Your task to perform on an android device: Add "alienware area 51" to the cart on newegg.com, then select checkout. Image 0: 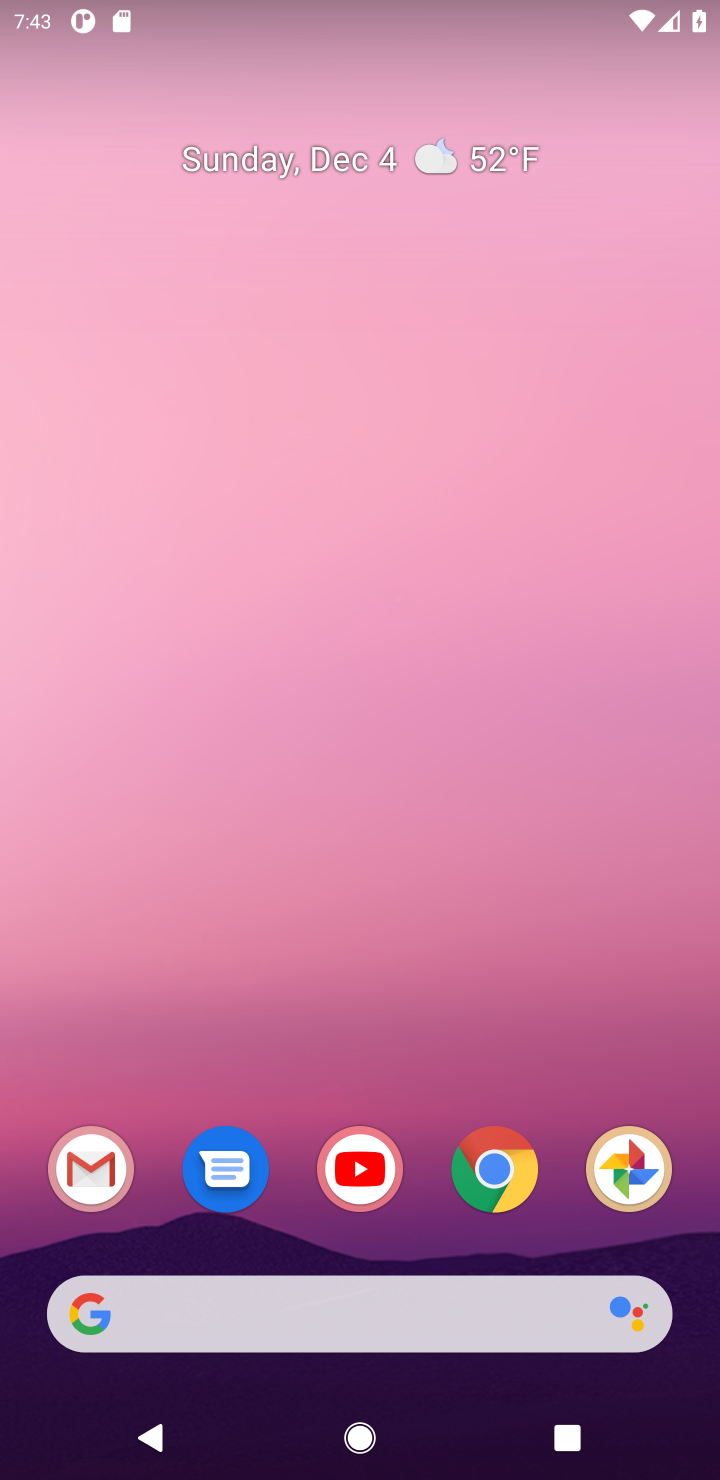
Step 0: click (500, 1178)
Your task to perform on an android device: Add "alienware area 51" to the cart on newegg.com, then select checkout. Image 1: 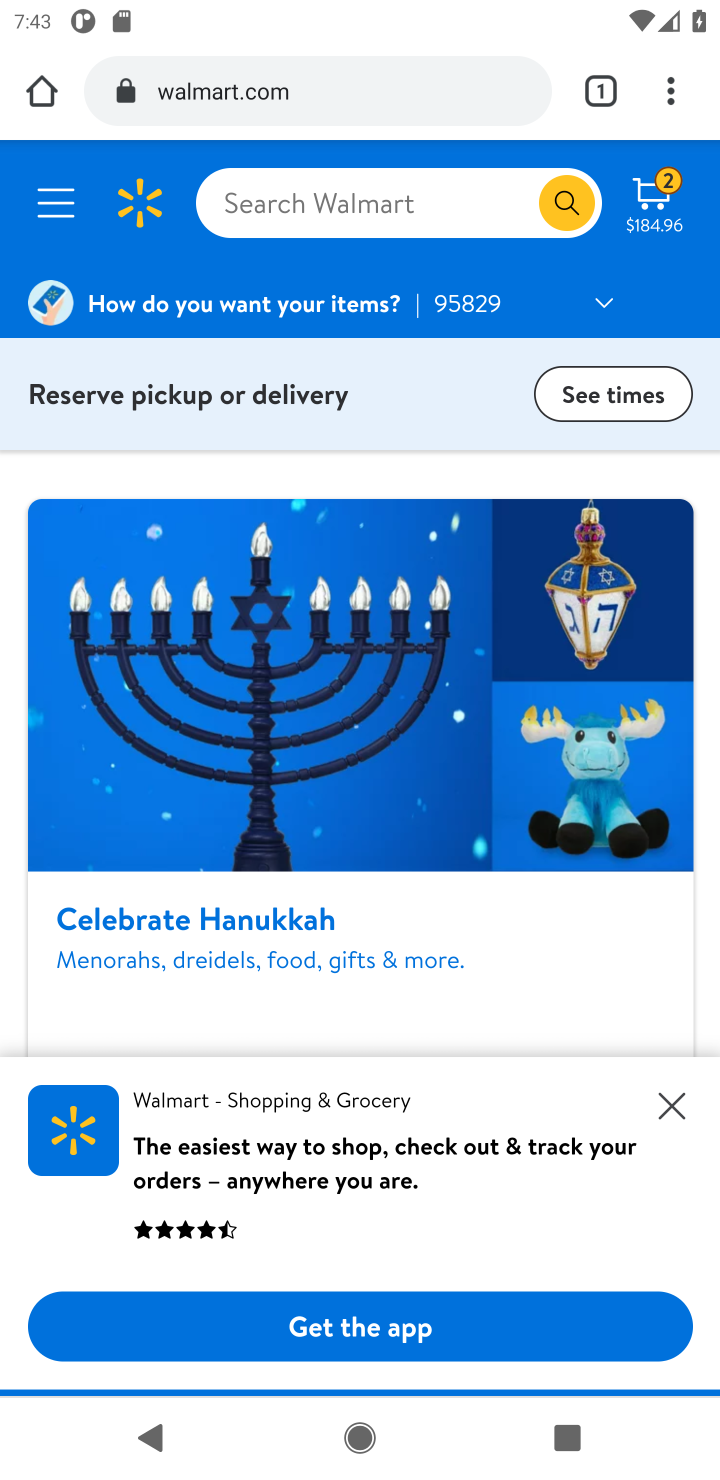
Step 1: click (335, 92)
Your task to perform on an android device: Add "alienware area 51" to the cart on newegg.com, then select checkout. Image 2: 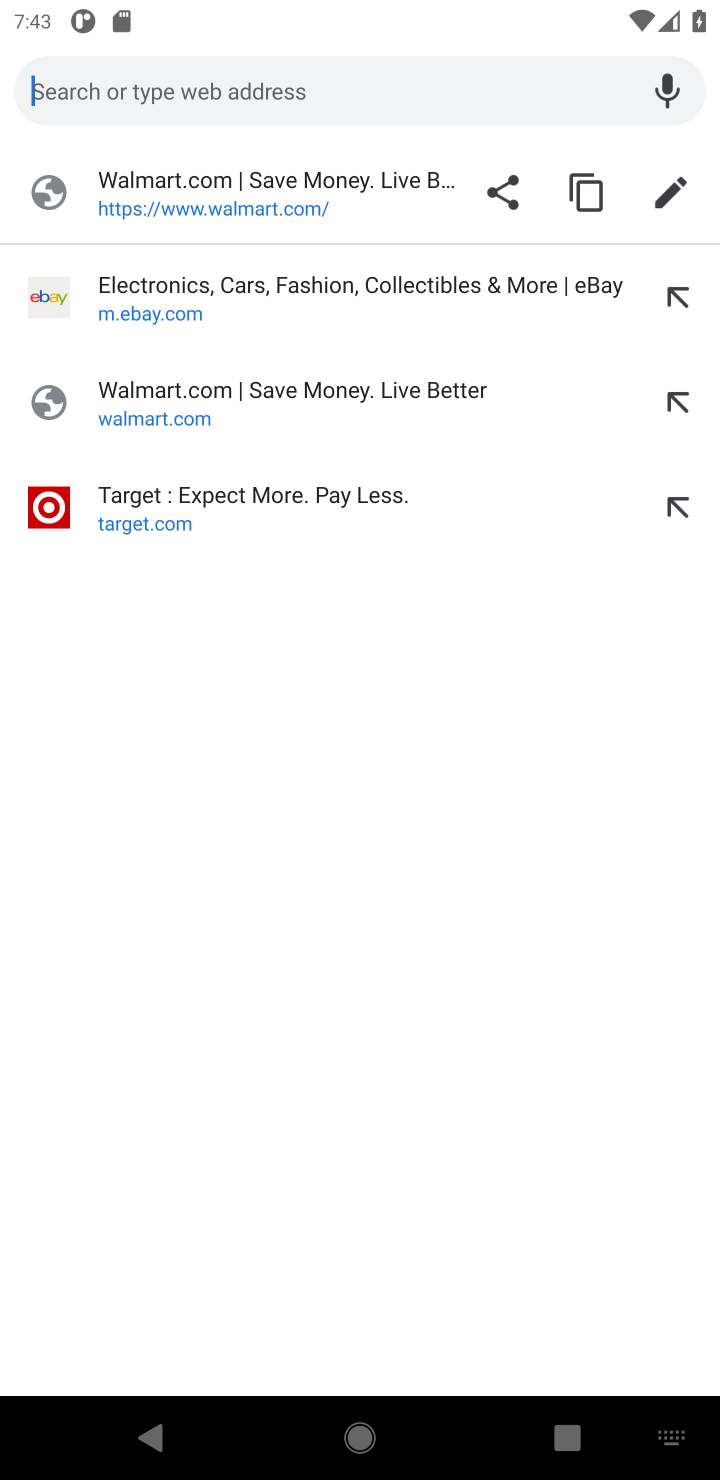
Step 2: type "newegg"
Your task to perform on an android device: Add "alienware area 51" to the cart on newegg.com, then select checkout. Image 3: 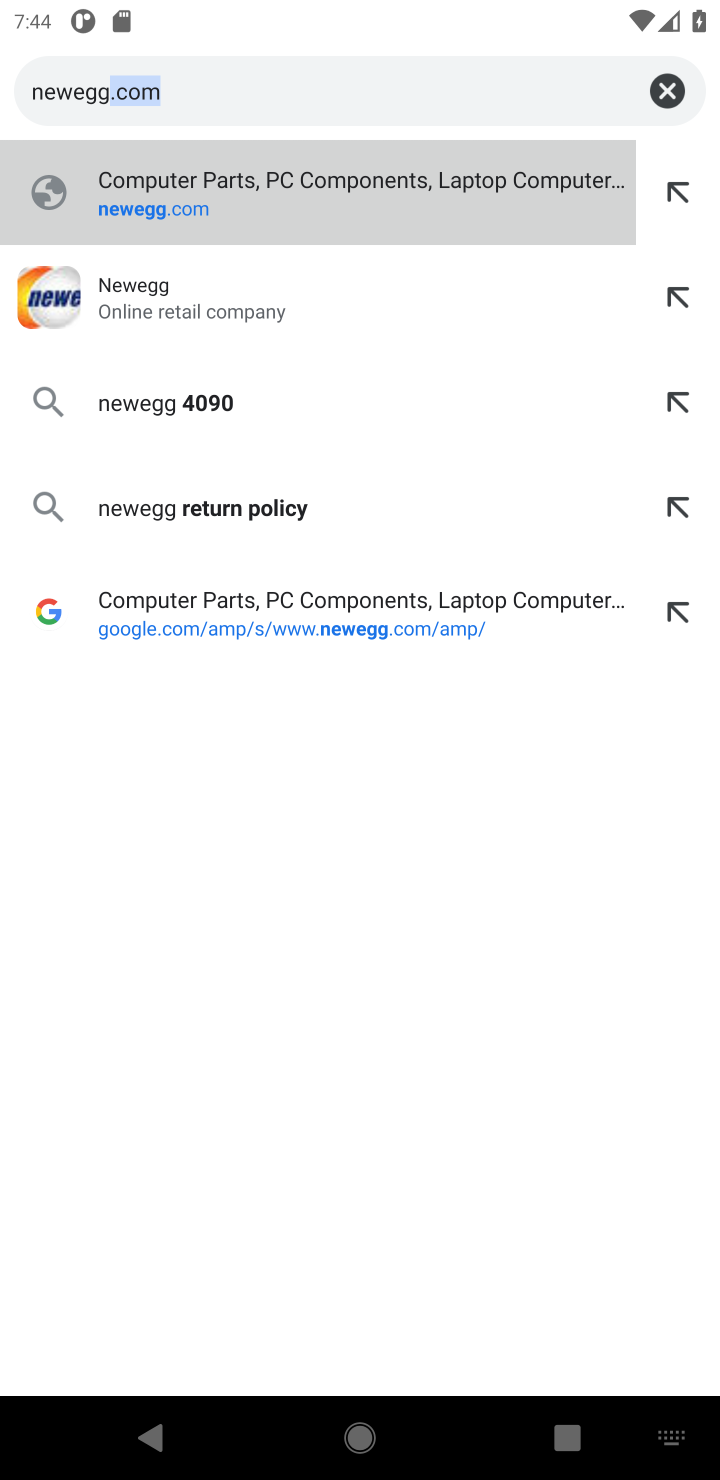
Step 3: click (222, 198)
Your task to perform on an android device: Add "alienware area 51" to the cart on newegg.com, then select checkout. Image 4: 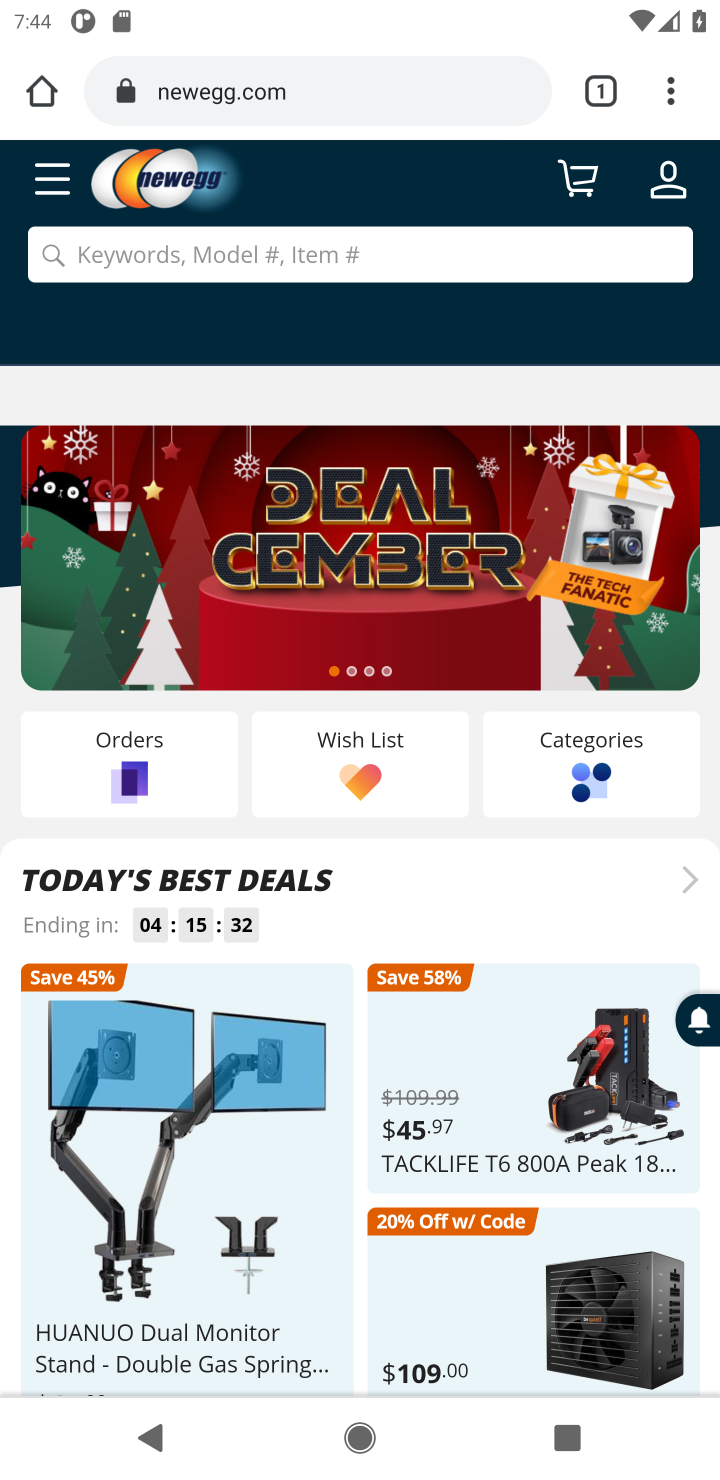
Step 4: click (365, 253)
Your task to perform on an android device: Add "alienware area 51" to the cart on newegg.com, then select checkout. Image 5: 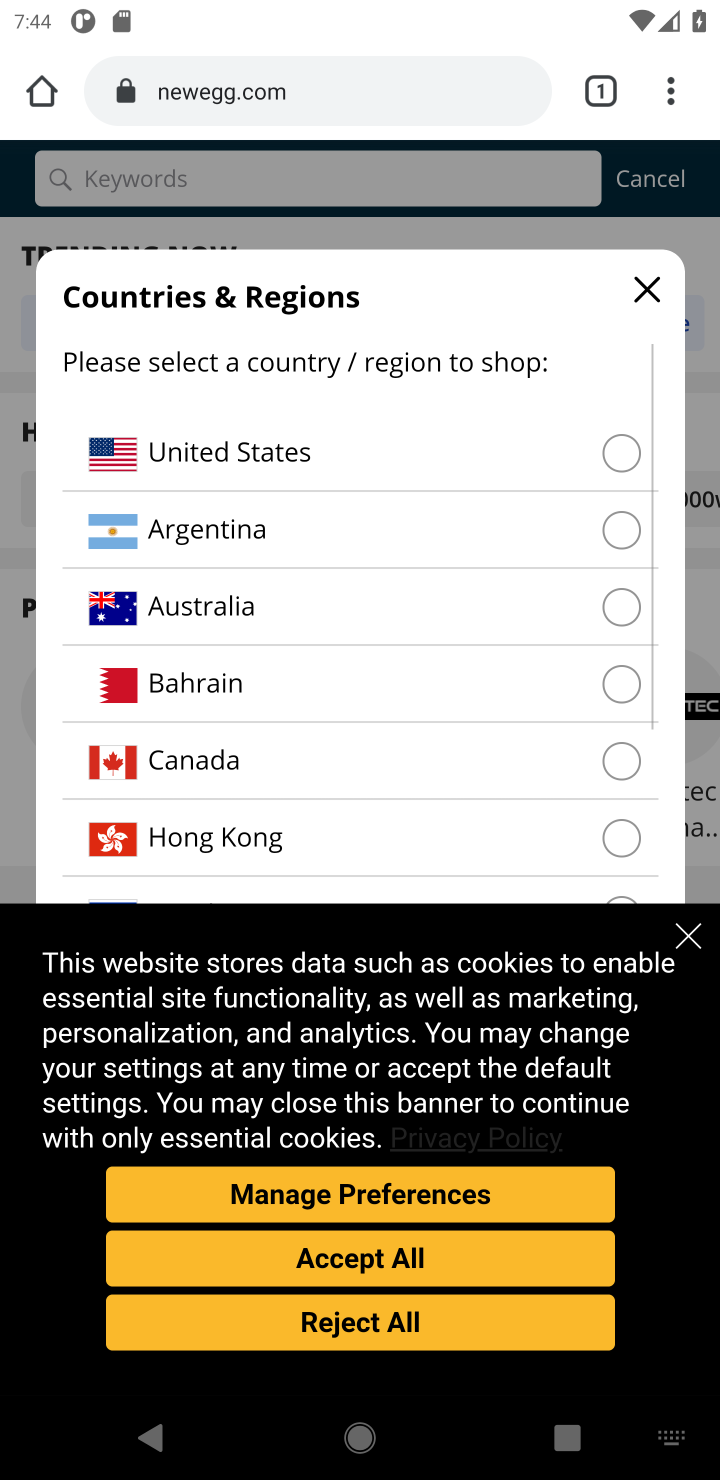
Step 5: click (684, 943)
Your task to perform on an android device: Add "alienware area 51" to the cart on newegg.com, then select checkout. Image 6: 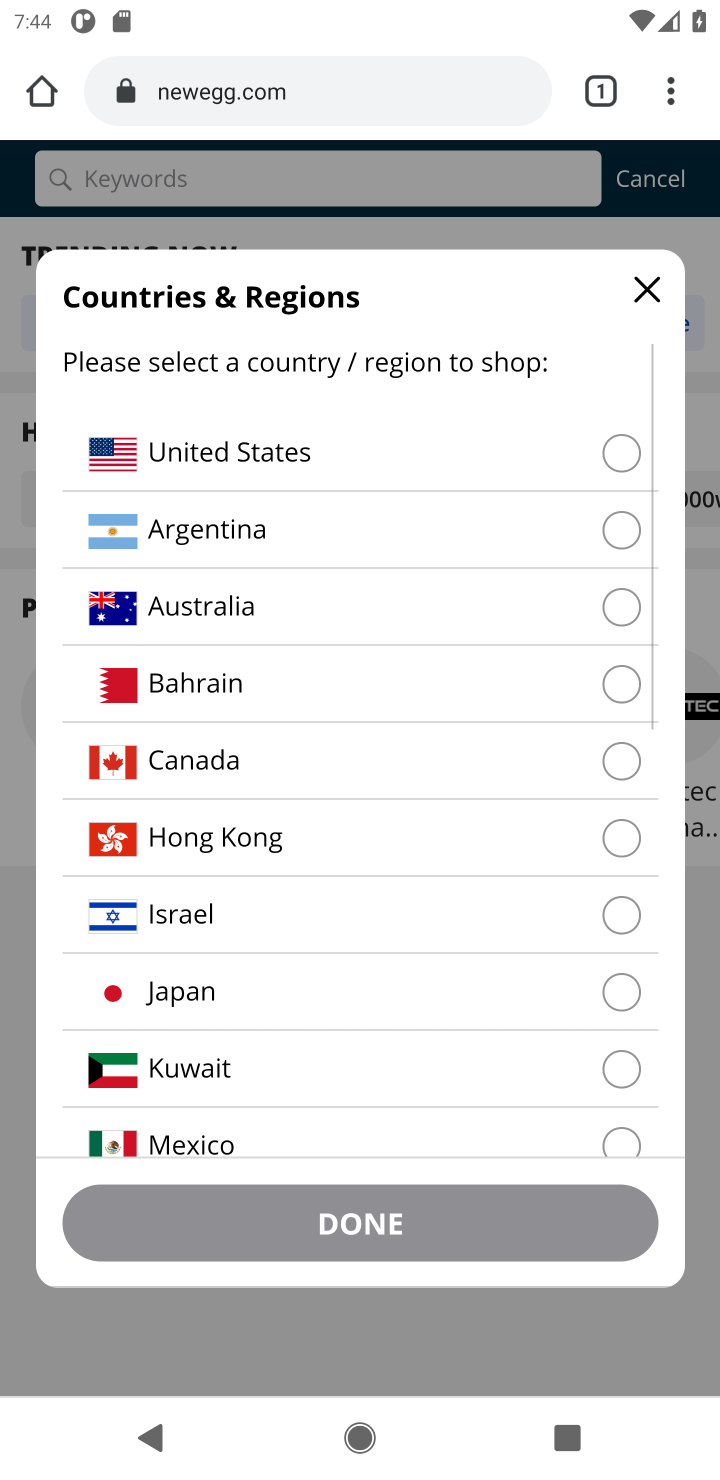
Step 6: click (636, 292)
Your task to perform on an android device: Add "alienware area 51" to the cart on newegg.com, then select checkout. Image 7: 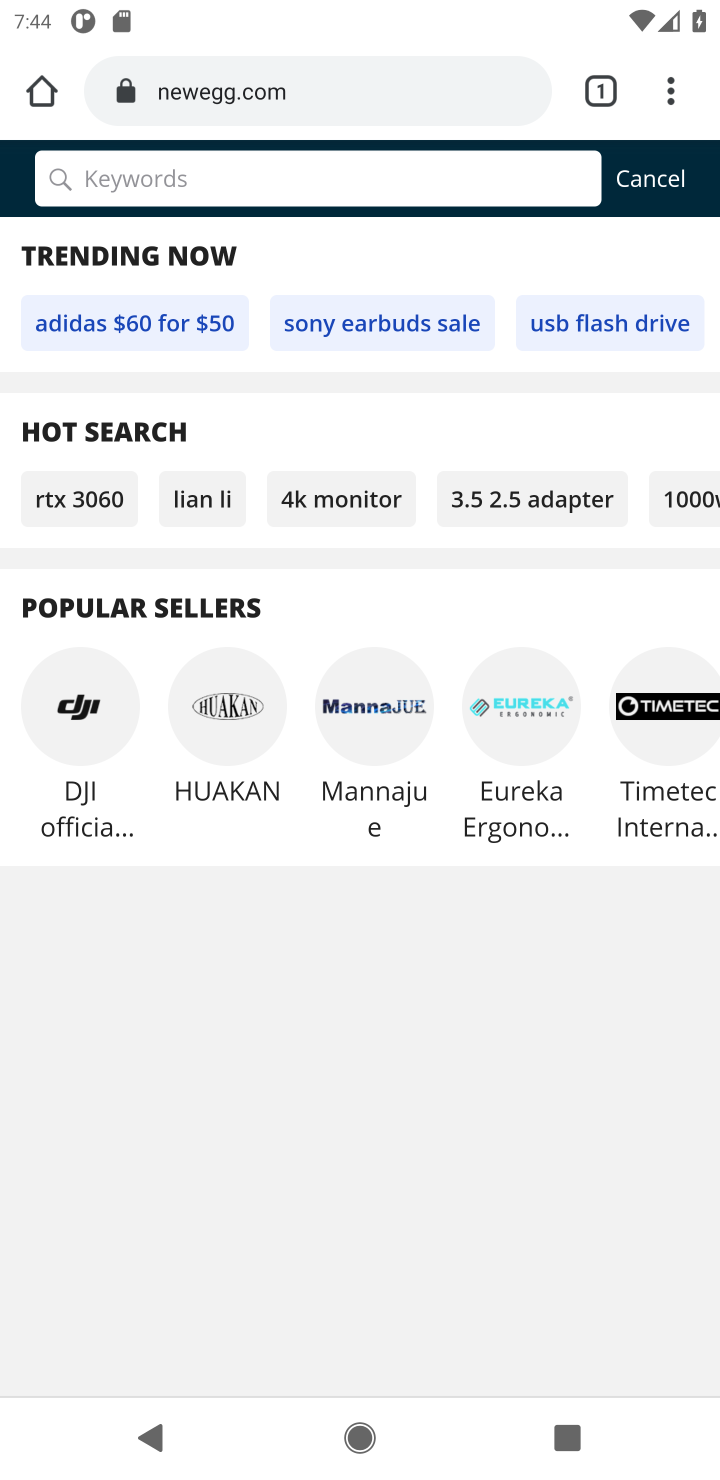
Step 7: click (435, 184)
Your task to perform on an android device: Add "alienware area 51" to the cart on newegg.com, then select checkout. Image 8: 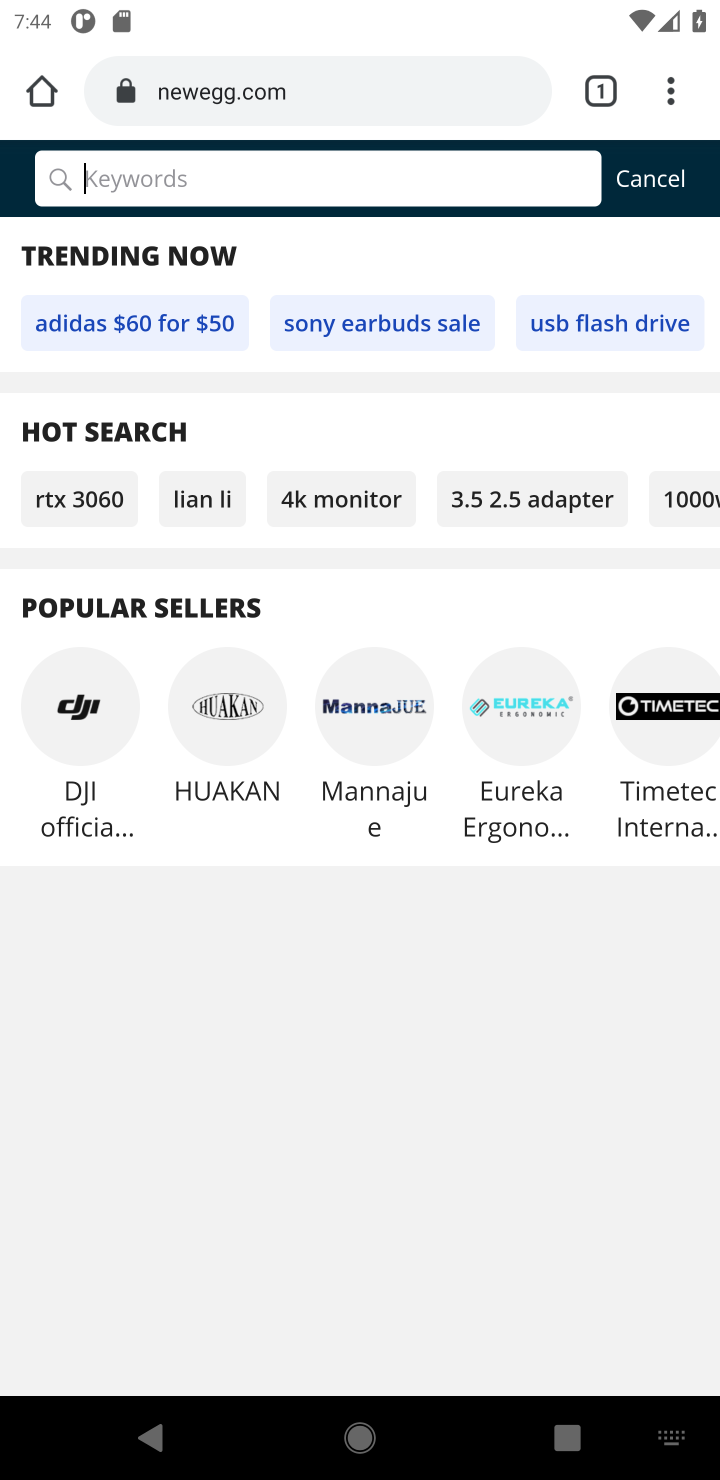
Step 8: type "alienware area 51"
Your task to perform on an android device: Add "alienware area 51" to the cart on newegg.com, then select checkout. Image 9: 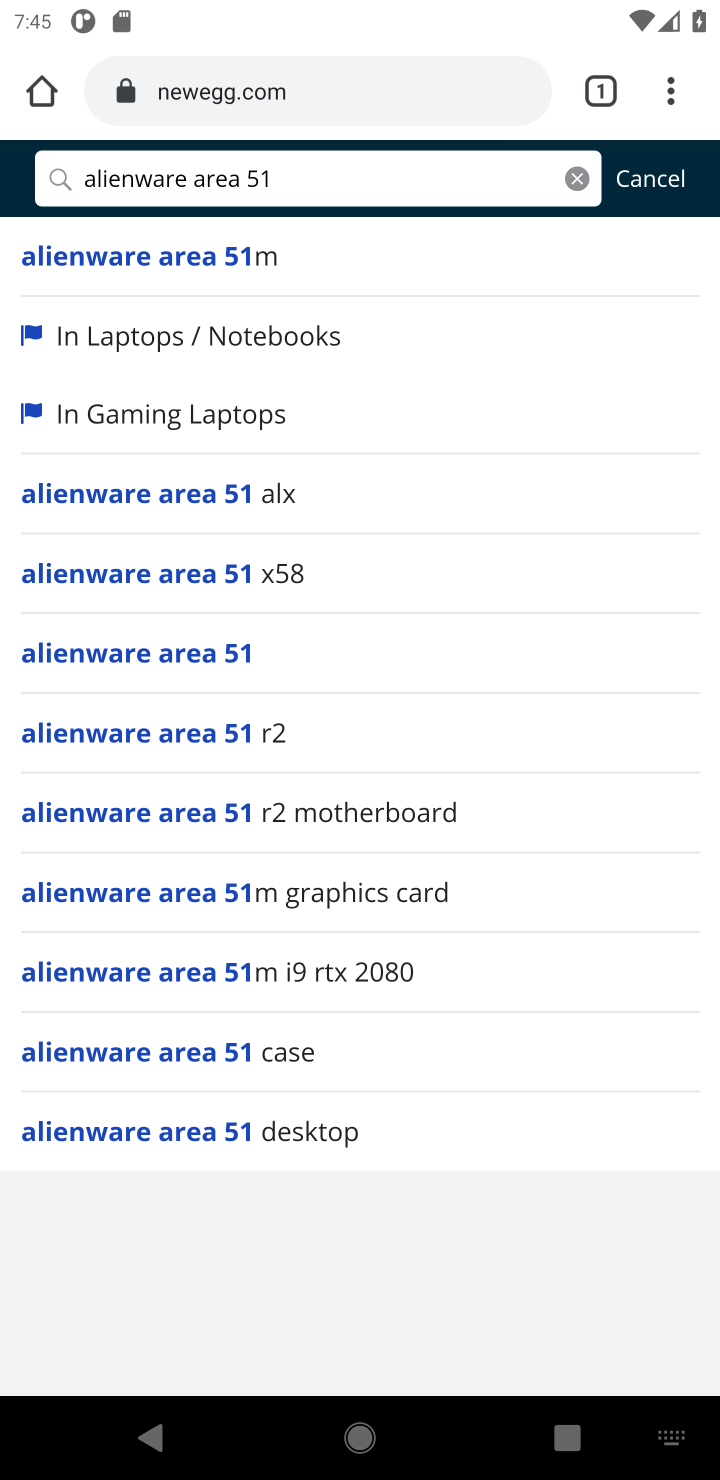
Step 9: click (178, 255)
Your task to perform on an android device: Add "alienware area 51" to the cart on newegg.com, then select checkout. Image 10: 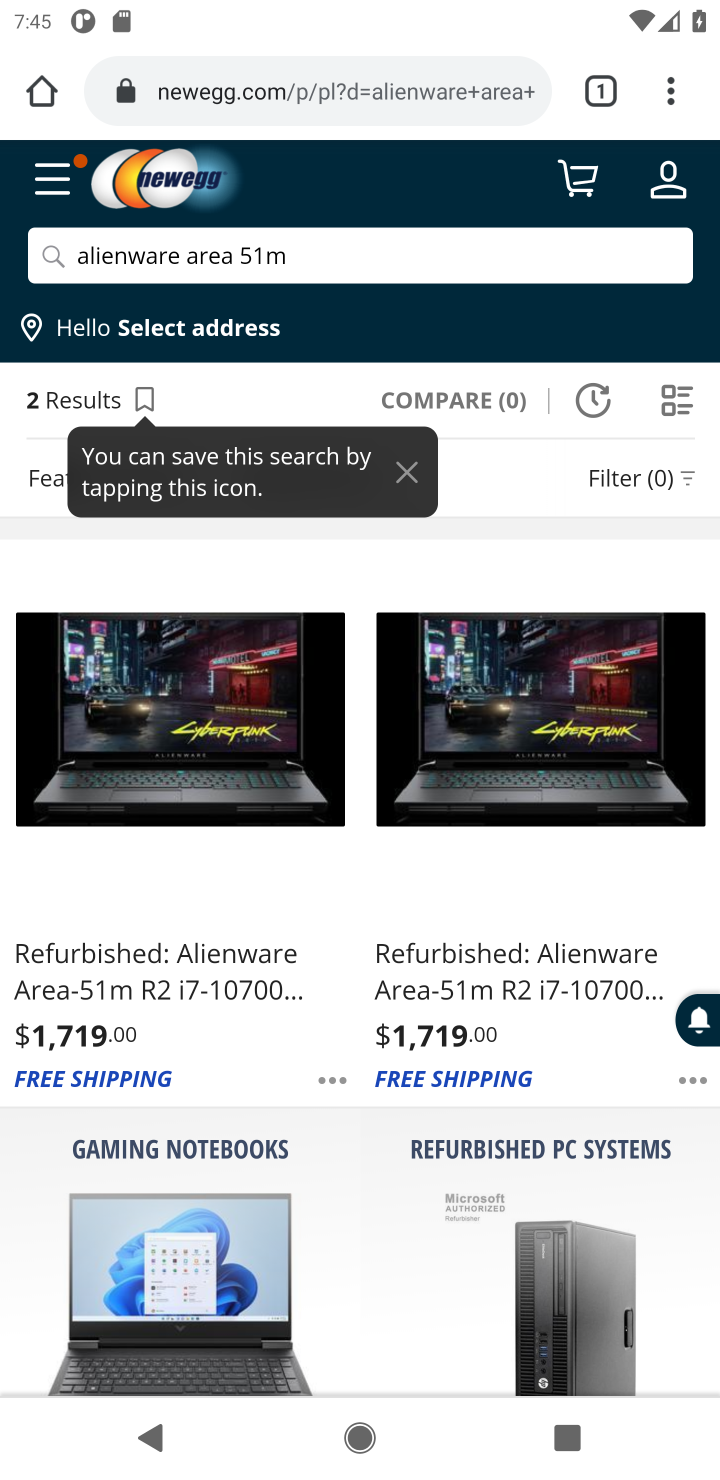
Step 10: click (211, 742)
Your task to perform on an android device: Add "alienware area 51" to the cart on newegg.com, then select checkout. Image 11: 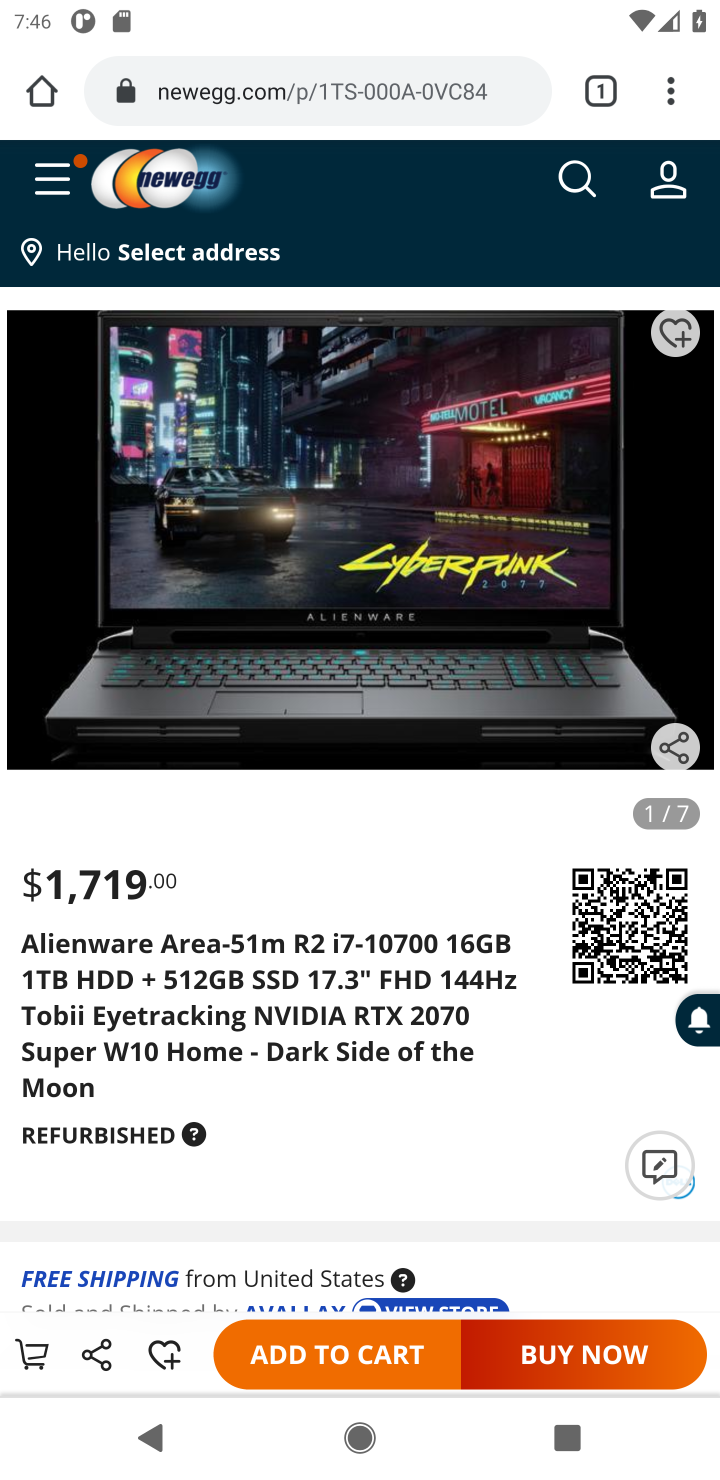
Step 11: click (341, 1346)
Your task to perform on an android device: Add "alienware area 51" to the cart on newegg.com, then select checkout. Image 12: 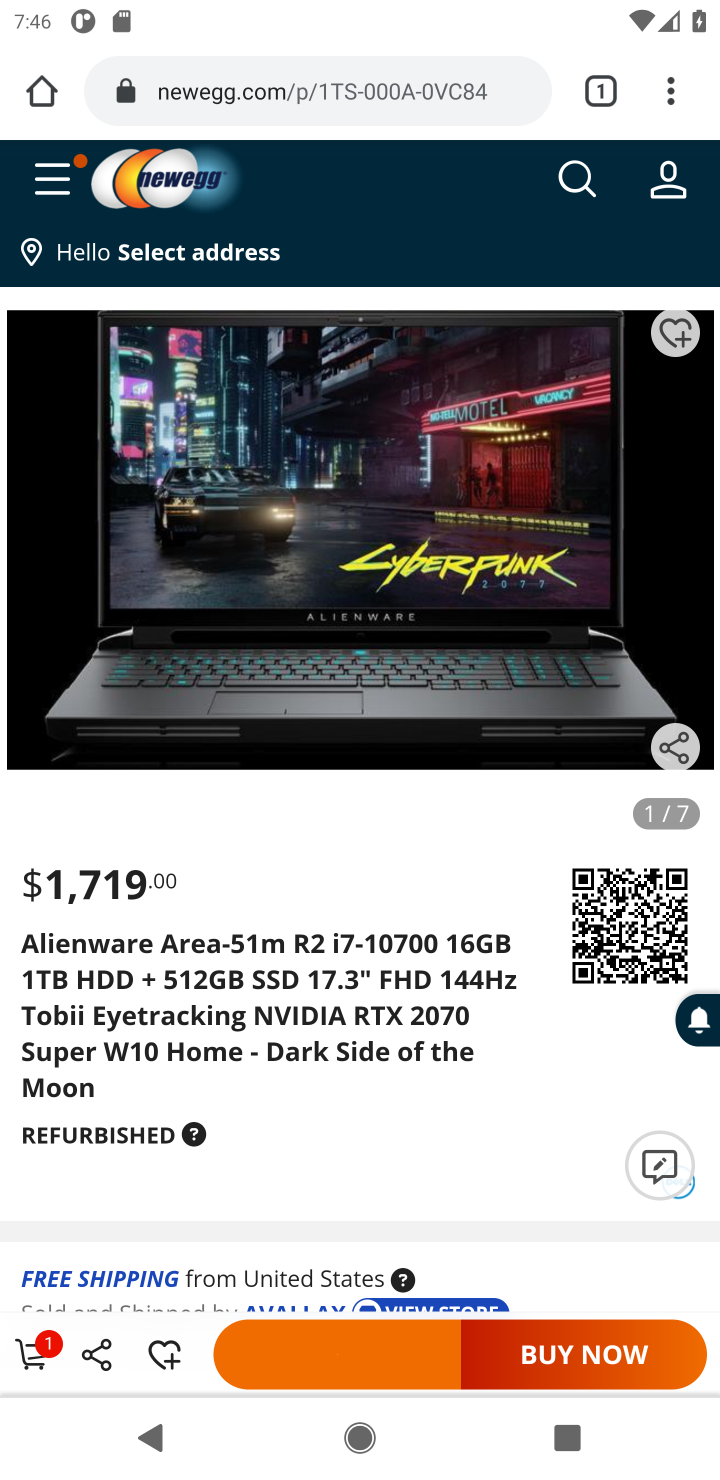
Step 12: task complete